Your task to perform on an android device: Open accessibility settings Image 0: 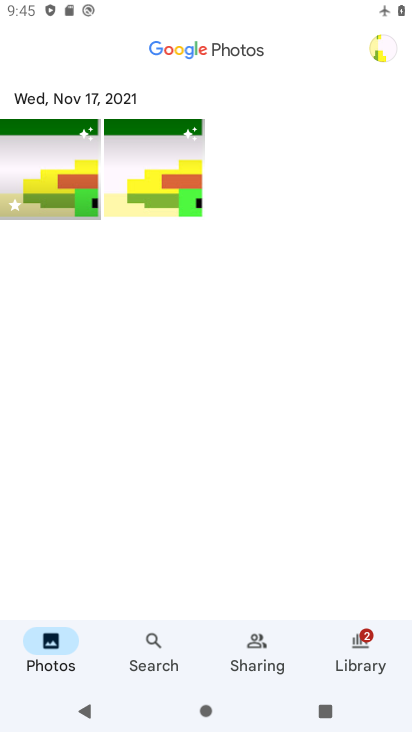
Step 0: press home button
Your task to perform on an android device: Open accessibility settings Image 1: 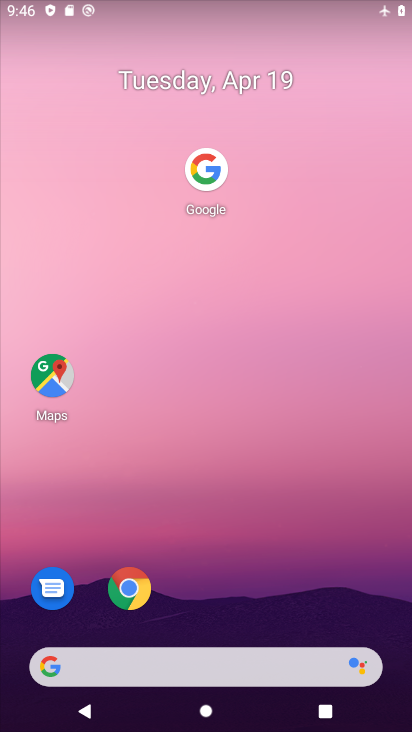
Step 1: drag from (234, 291) to (263, 10)
Your task to perform on an android device: Open accessibility settings Image 2: 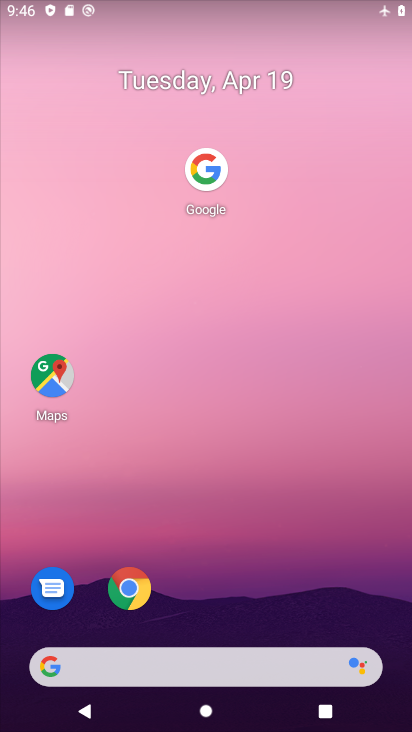
Step 2: drag from (211, 547) to (174, 34)
Your task to perform on an android device: Open accessibility settings Image 3: 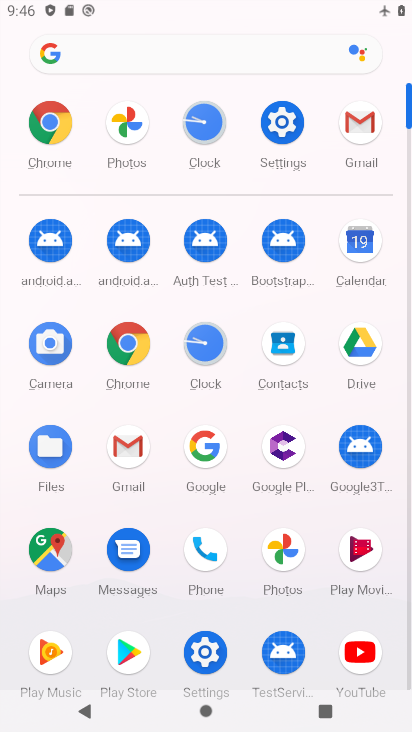
Step 3: click (281, 118)
Your task to perform on an android device: Open accessibility settings Image 4: 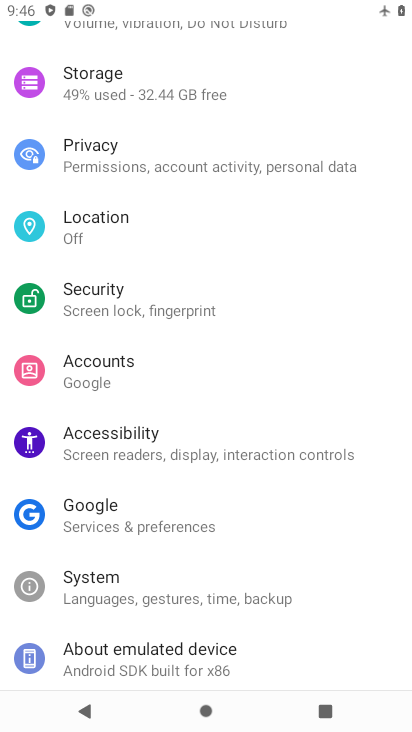
Step 4: click (102, 429)
Your task to perform on an android device: Open accessibility settings Image 5: 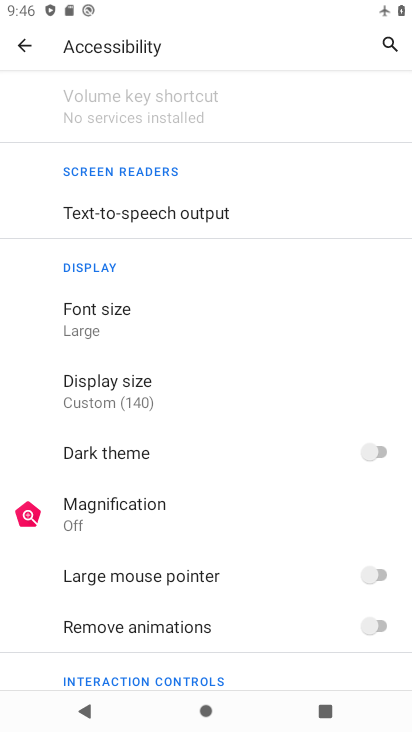
Step 5: task complete